Your task to perform on an android device: Go to sound settings Image 0: 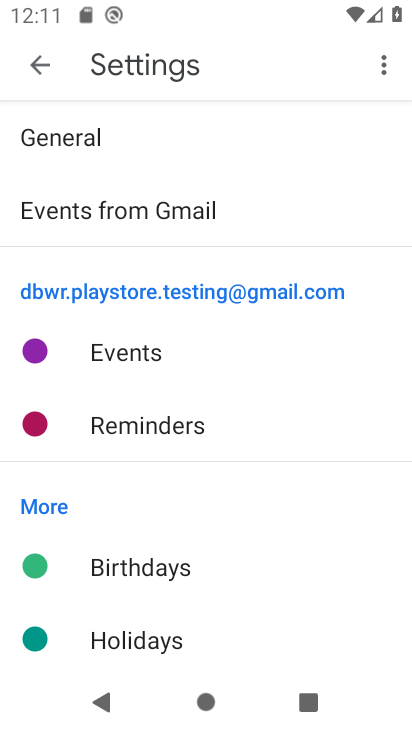
Step 0: press home button
Your task to perform on an android device: Go to sound settings Image 1: 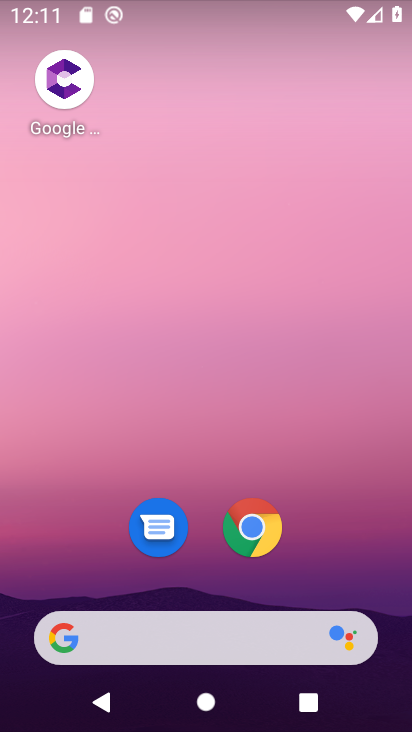
Step 1: drag from (249, 693) to (183, 99)
Your task to perform on an android device: Go to sound settings Image 2: 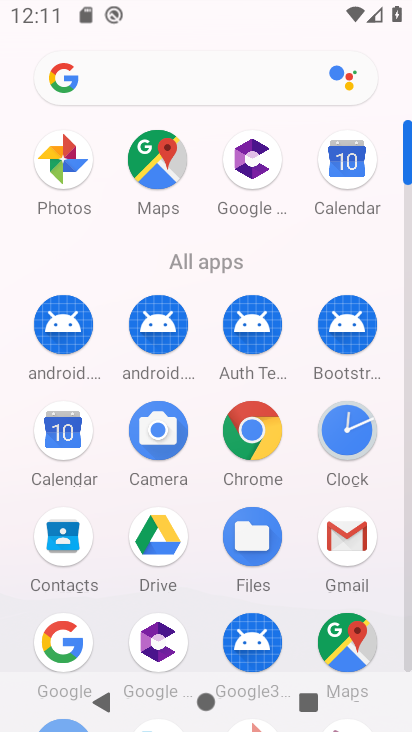
Step 2: drag from (238, 550) to (218, 197)
Your task to perform on an android device: Go to sound settings Image 3: 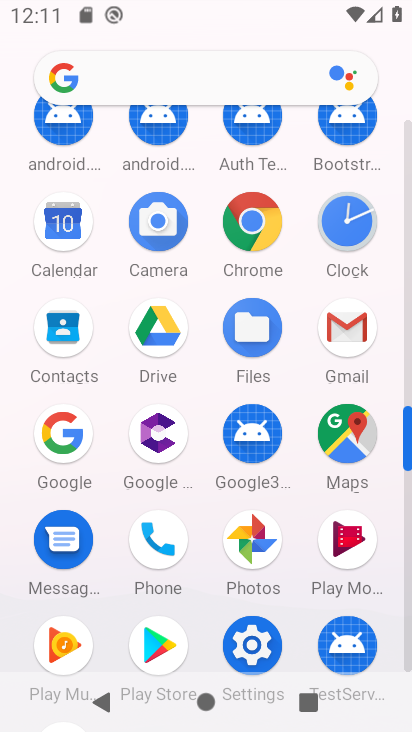
Step 3: click (262, 629)
Your task to perform on an android device: Go to sound settings Image 4: 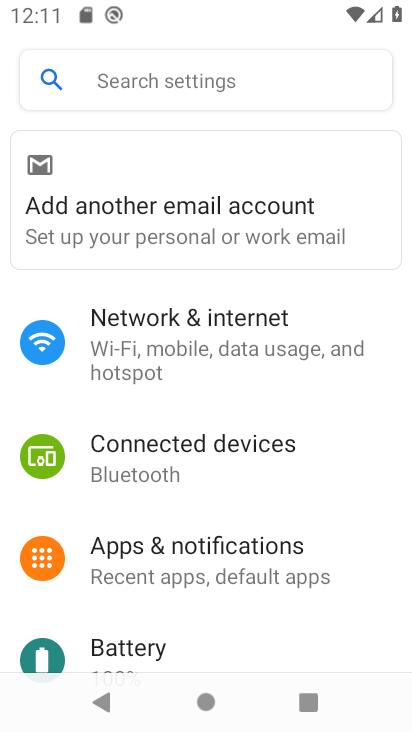
Step 4: drag from (240, 628) to (296, 125)
Your task to perform on an android device: Go to sound settings Image 5: 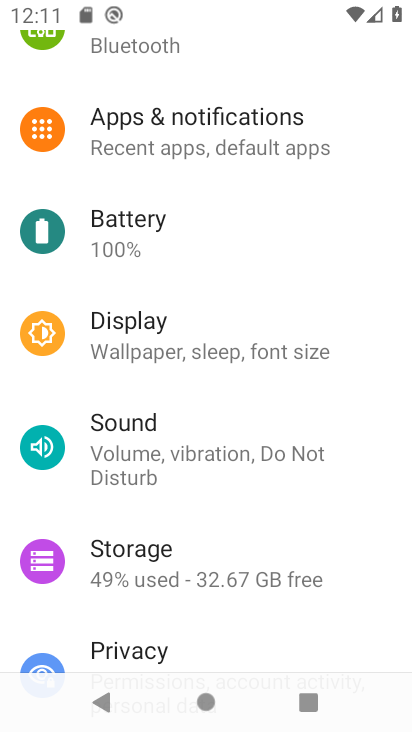
Step 5: click (178, 468)
Your task to perform on an android device: Go to sound settings Image 6: 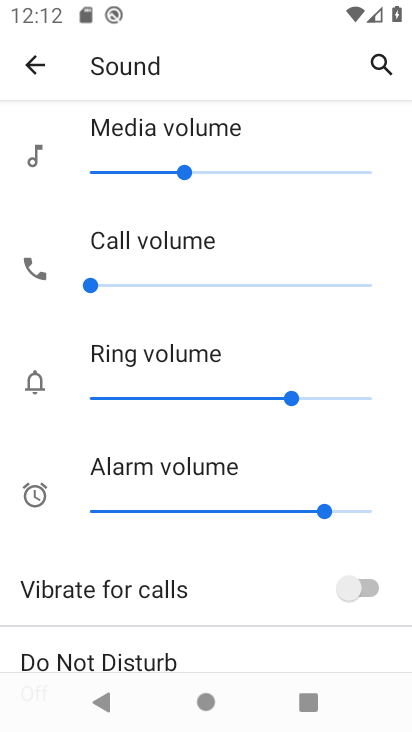
Step 6: task complete